Your task to perform on an android device: Open Yahoo.com Image 0: 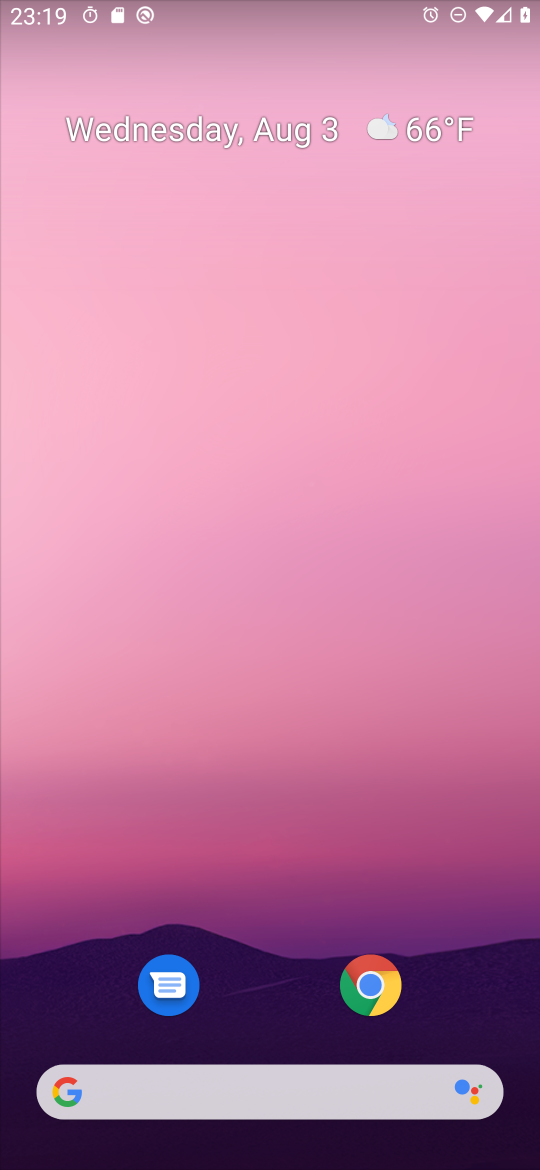
Step 0: click (372, 973)
Your task to perform on an android device: Open Yahoo.com Image 1: 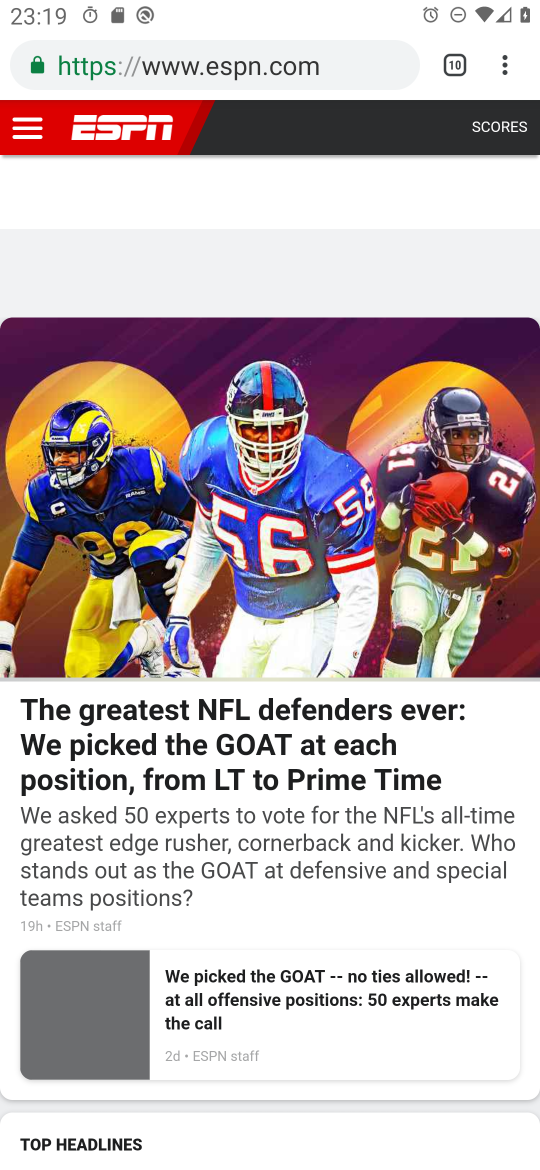
Step 1: click (451, 65)
Your task to perform on an android device: Open Yahoo.com Image 2: 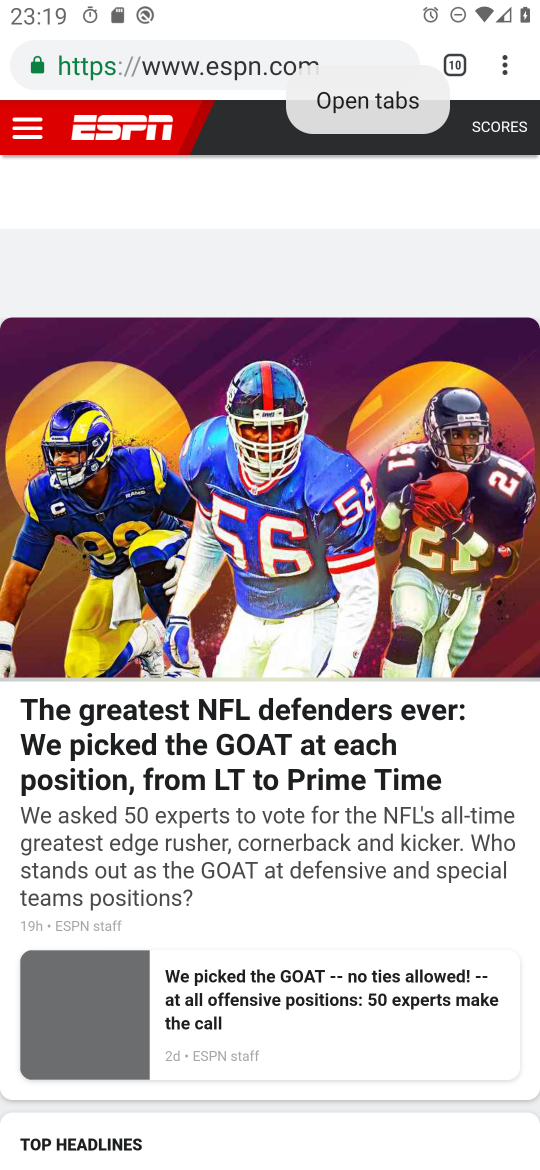
Step 2: click (464, 55)
Your task to perform on an android device: Open Yahoo.com Image 3: 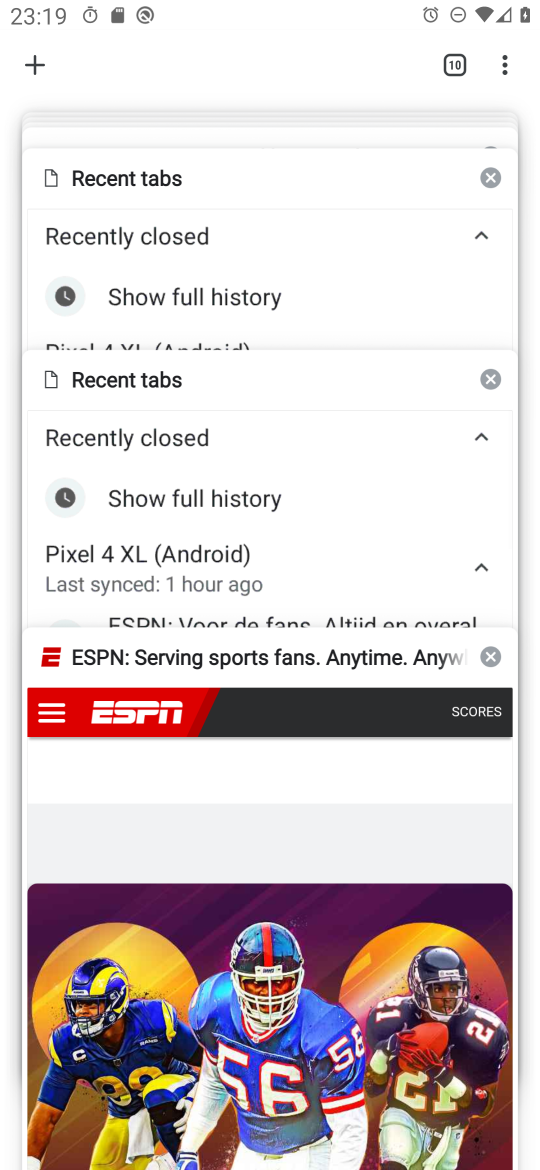
Step 3: click (40, 58)
Your task to perform on an android device: Open Yahoo.com Image 4: 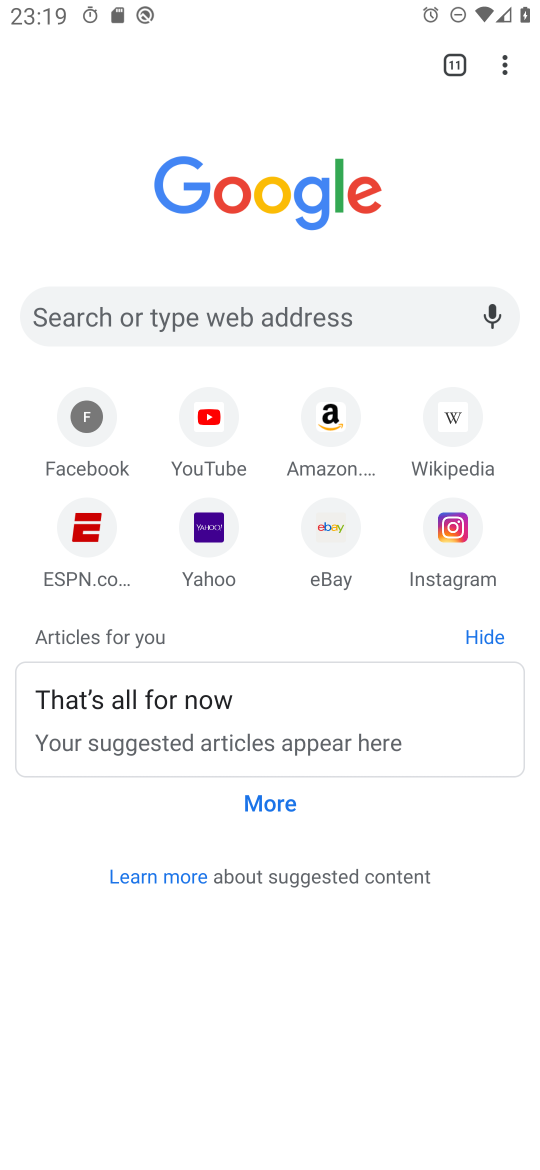
Step 4: click (184, 517)
Your task to perform on an android device: Open Yahoo.com Image 5: 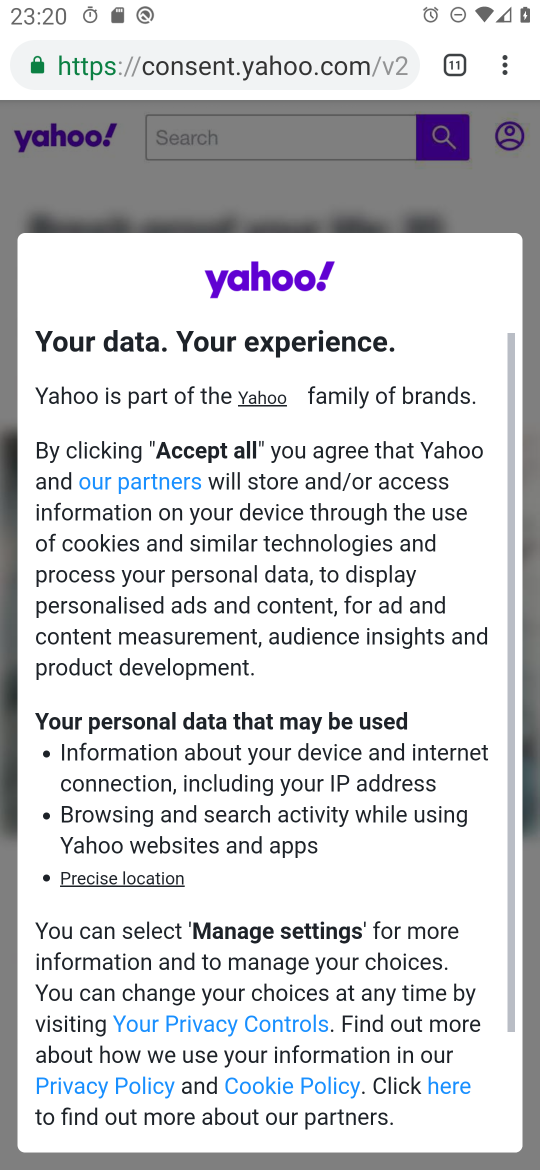
Step 5: task complete